Your task to perform on an android device: open app "Duolingo: language lessons" (install if not already installed) and go to login screen Image 0: 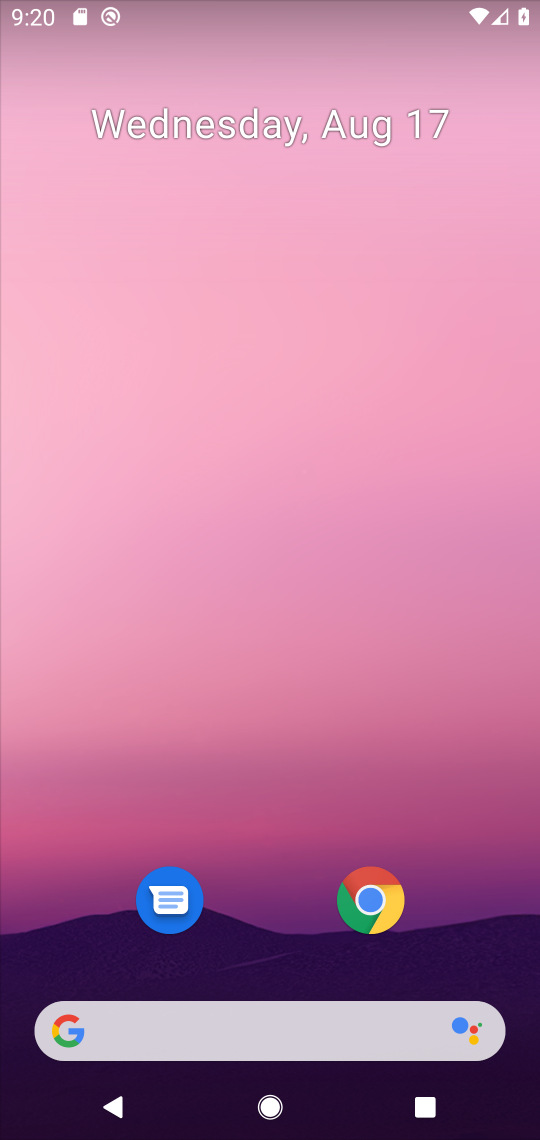
Step 0: drag from (316, 978) to (352, 127)
Your task to perform on an android device: open app "Duolingo: language lessons" (install if not already installed) and go to login screen Image 1: 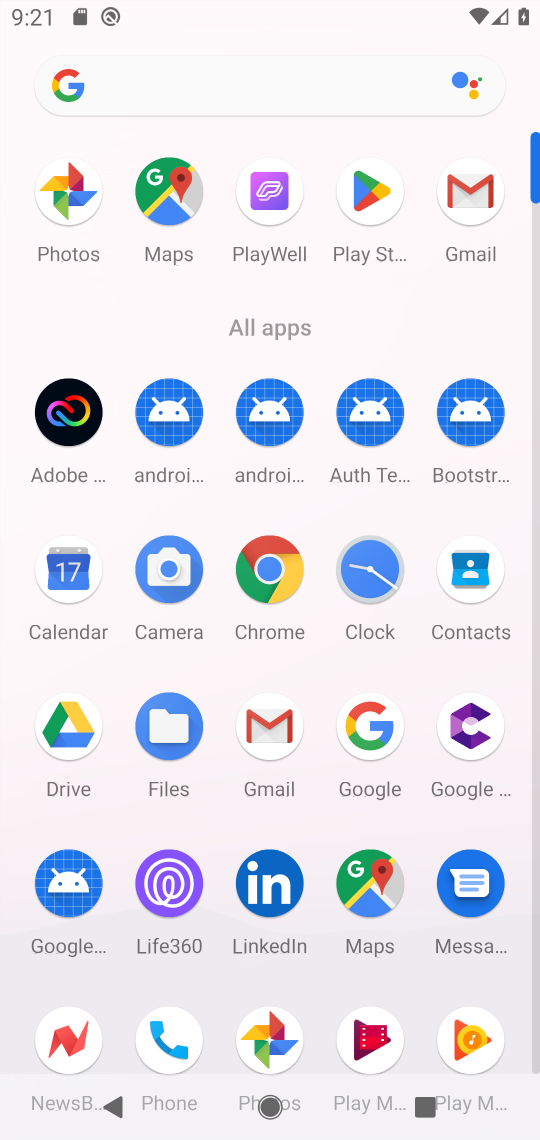
Step 1: click (361, 214)
Your task to perform on an android device: open app "Duolingo: language lessons" (install if not already installed) and go to login screen Image 2: 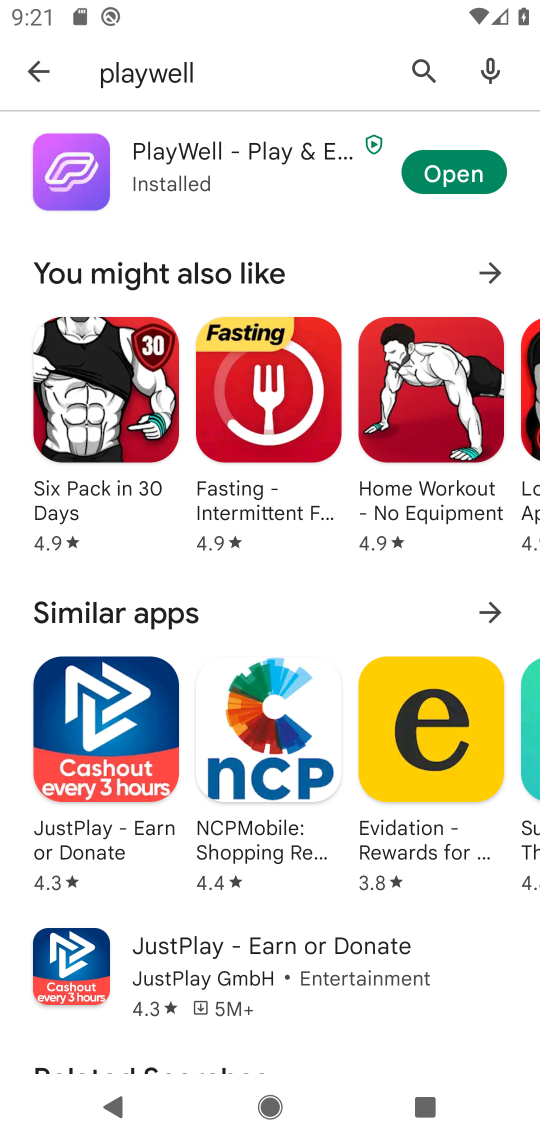
Step 2: click (40, 72)
Your task to perform on an android device: open app "Duolingo: language lessons" (install if not already installed) and go to login screen Image 3: 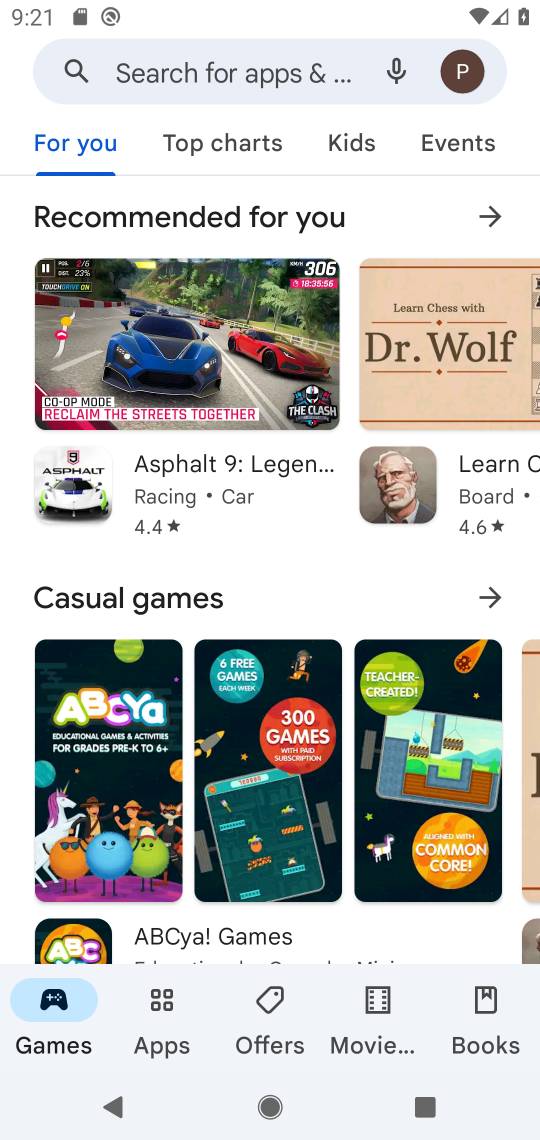
Step 3: click (132, 74)
Your task to perform on an android device: open app "Duolingo: language lessons" (install if not already installed) and go to login screen Image 4: 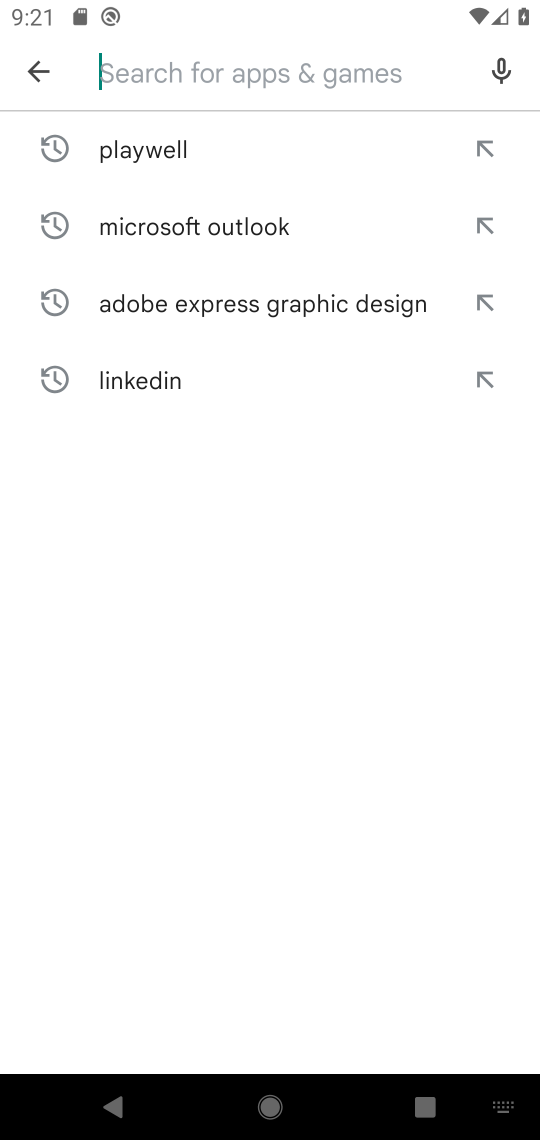
Step 4: type "Duolingo: language lessons"
Your task to perform on an android device: open app "Duolingo: language lessons" (install if not already installed) and go to login screen Image 5: 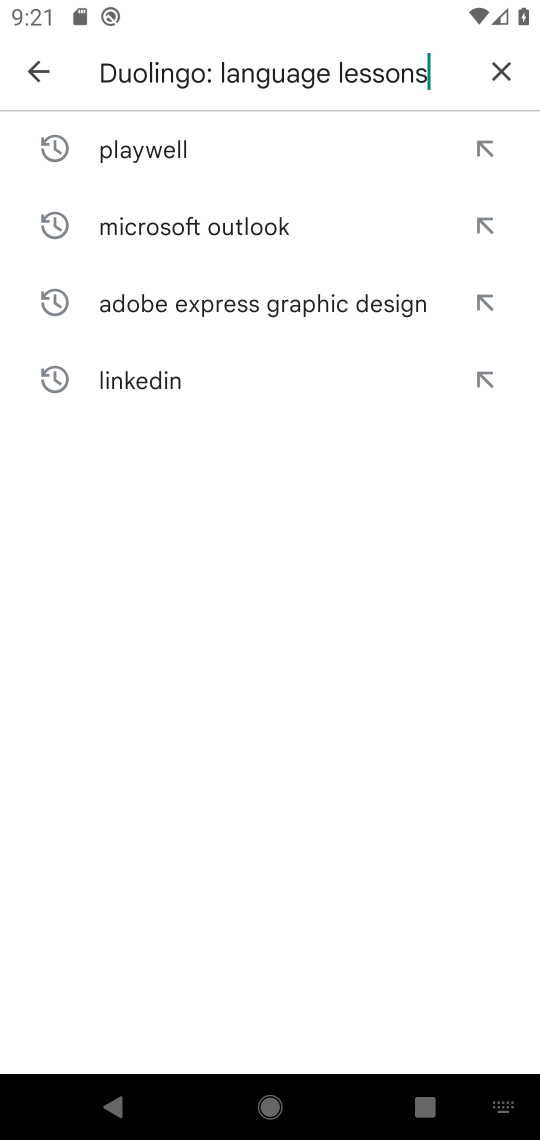
Step 5: type ""
Your task to perform on an android device: open app "Duolingo: language lessons" (install if not already installed) and go to login screen Image 6: 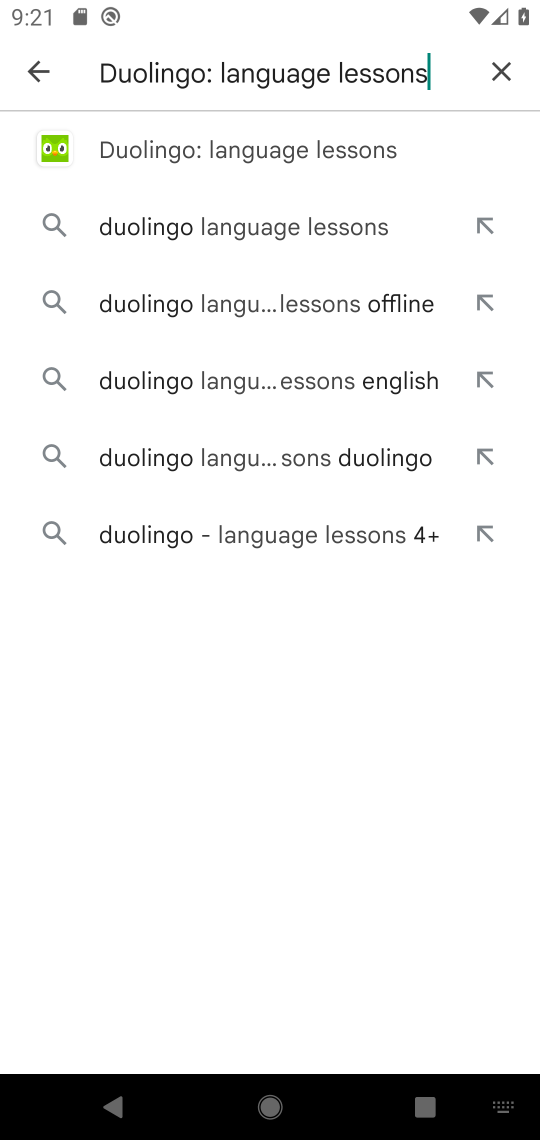
Step 6: click (250, 152)
Your task to perform on an android device: open app "Duolingo: language lessons" (install if not already installed) and go to login screen Image 7: 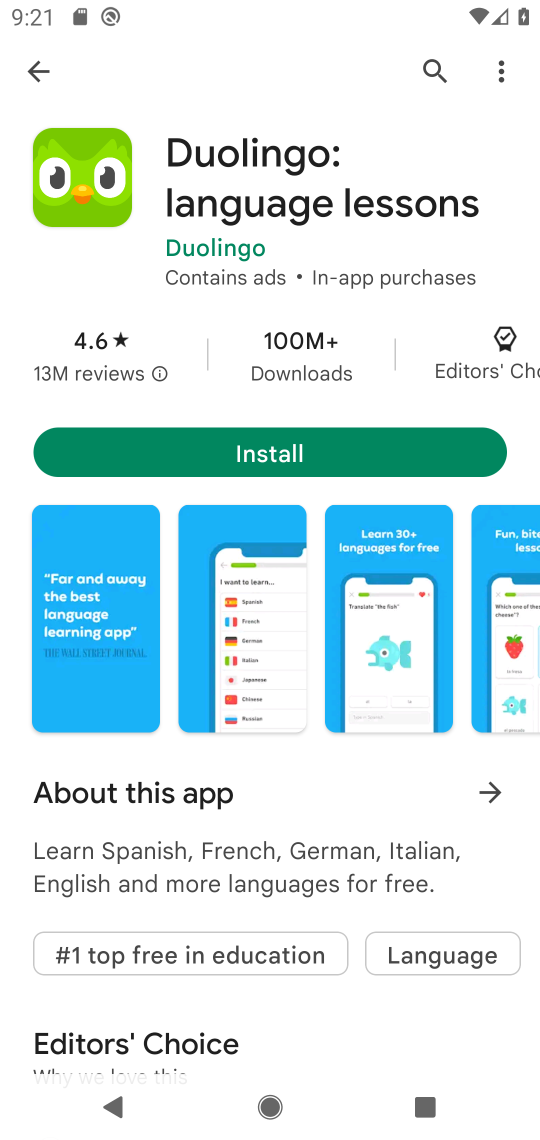
Step 7: click (258, 446)
Your task to perform on an android device: open app "Duolingo: language lessons" (install if not already installed) and go to login screen Image 8: 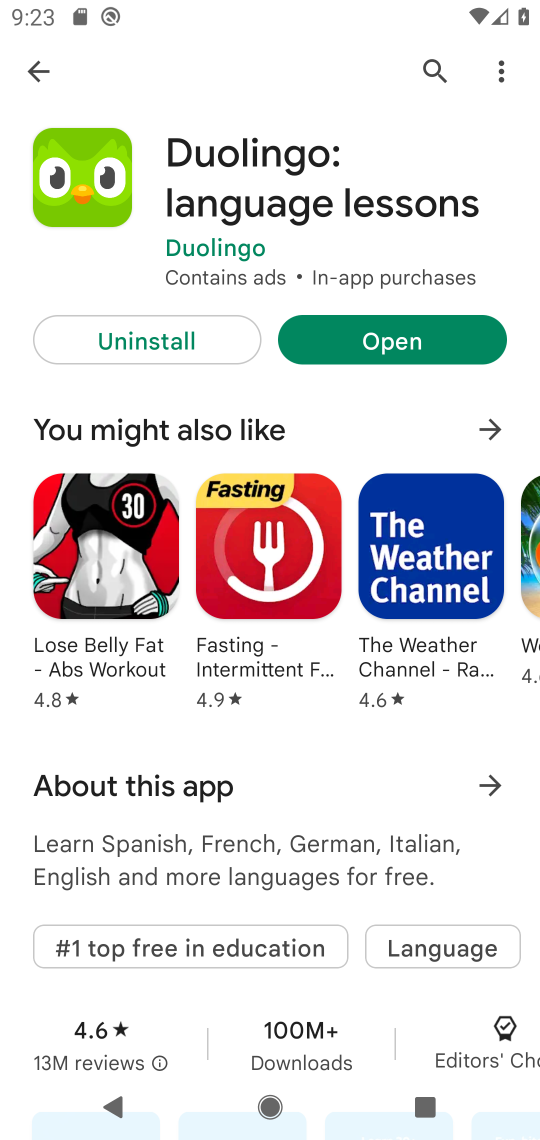
Step 8: click (418, 348)
Your task to perform on an android device: open app "Duolingo: language lessons" (install if not already installed) and go to login screen Image 9: 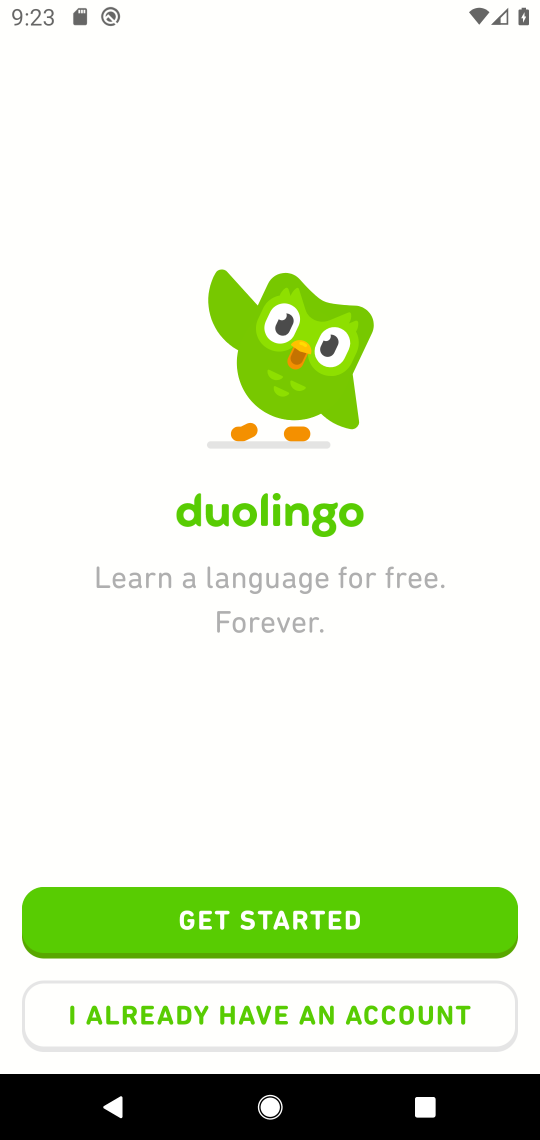
Step 9: task complete